Your task to perform on an android device: Open location settings Image 0: 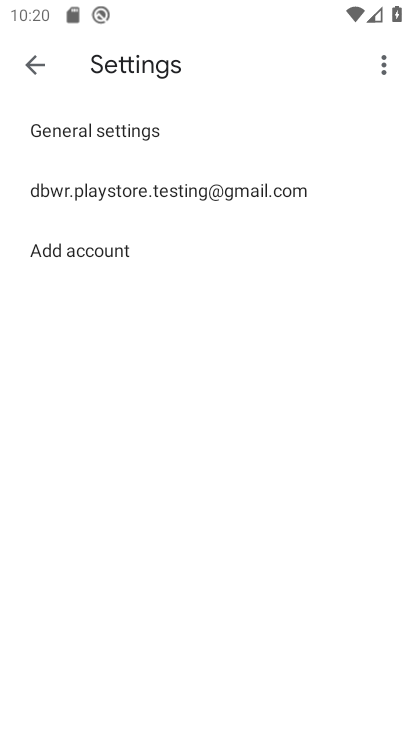
Step 0: press home button
Your task to perform on an android device: Open location settings Image 1: 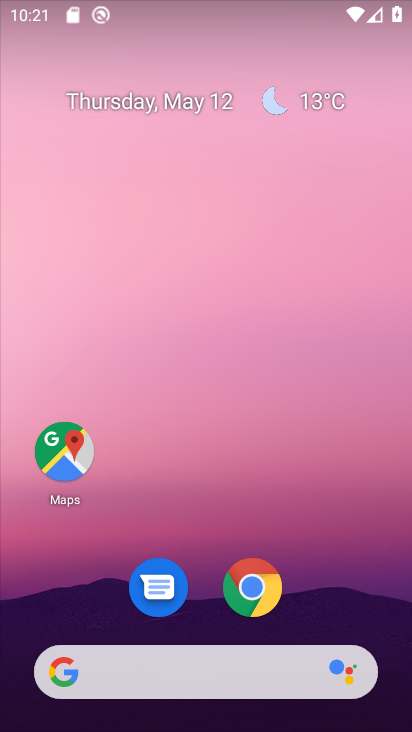
Step 1: drag from (205, 624) to (221, 49)
Your task to perform on an android device: Open location settings Image 2: 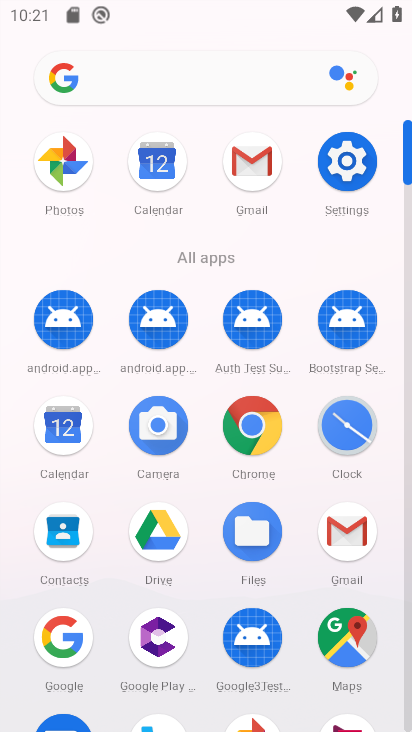
Step 2: click (342, 187)
Your task to perform on an android device: Open location settings Image 3: 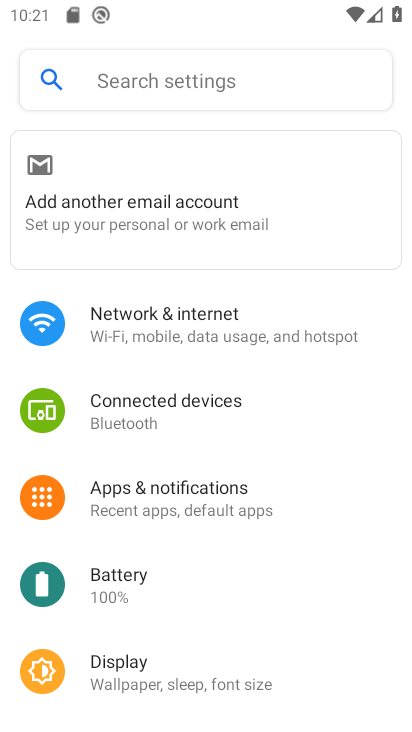
Step 3: drag from (199, 596) to (210, 181)
Your task to perform on an android device: Open location settings Image 4: 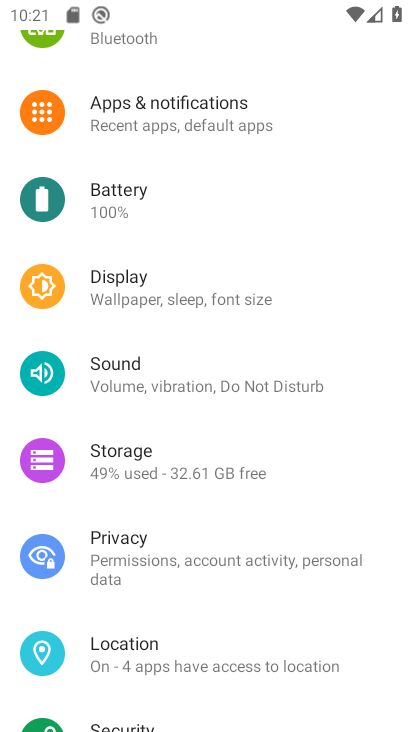
Step 4: click (160, 643)
Your task to perform on an android device: Open location settings Image 5: 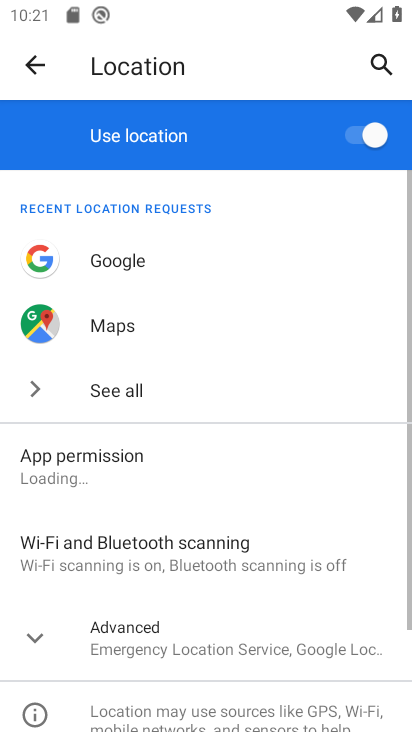
Step 5: task complete